Your task to perform on an android device: Play the last video I watched on Youtube Image 0: 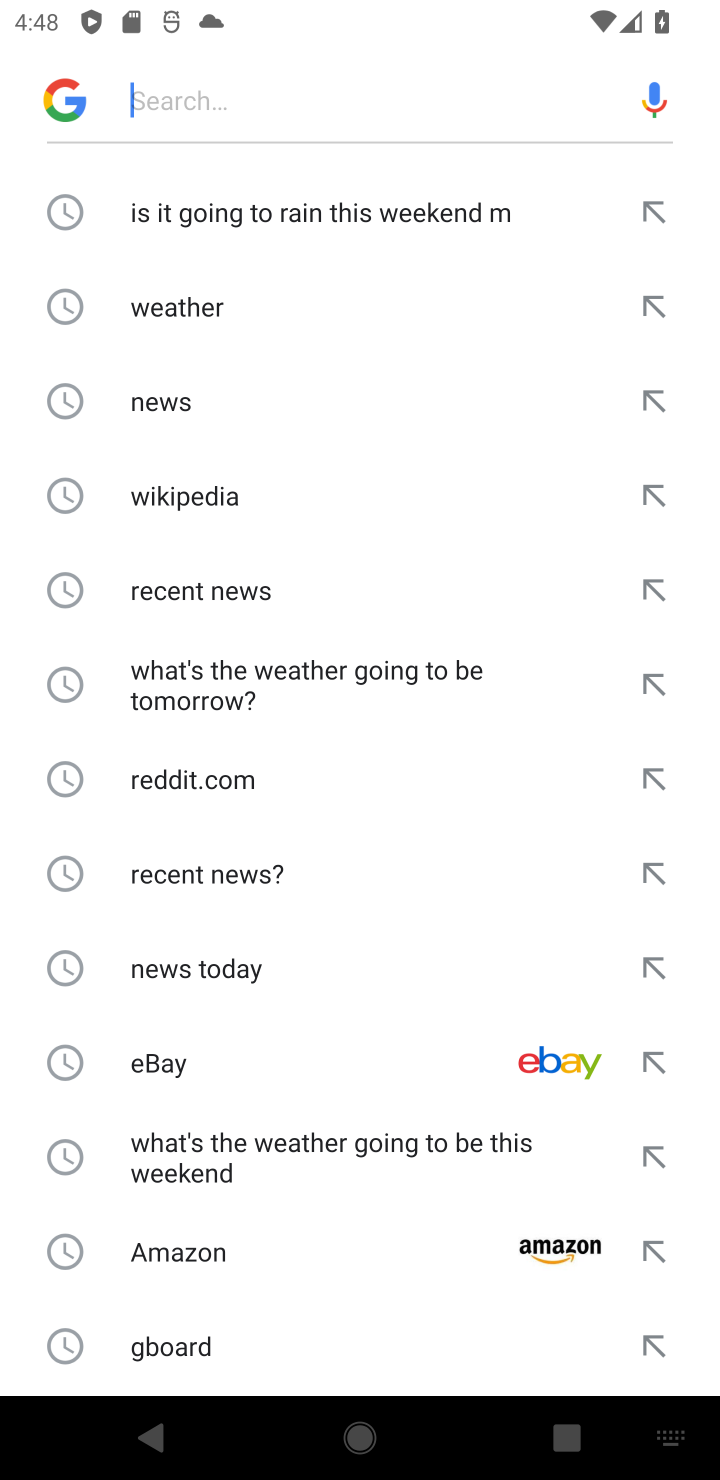
Step 0: press back button
Your task to perform on an android device: Play the last video I watched on Youtube Image 1: 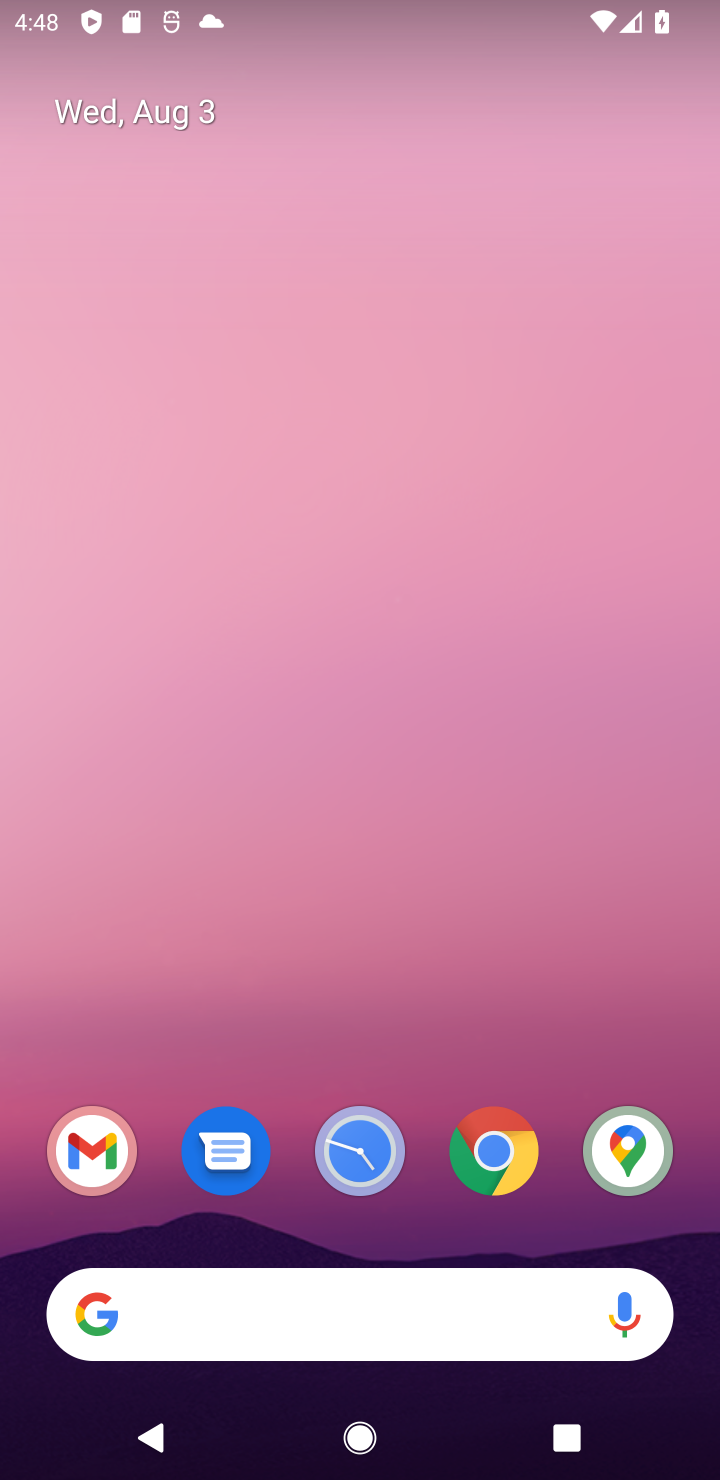
Step 1: drag from (449, 1167) to (266, 141)
Your task to perform on an android device: Play the last video I watched on Youtube Image 2: 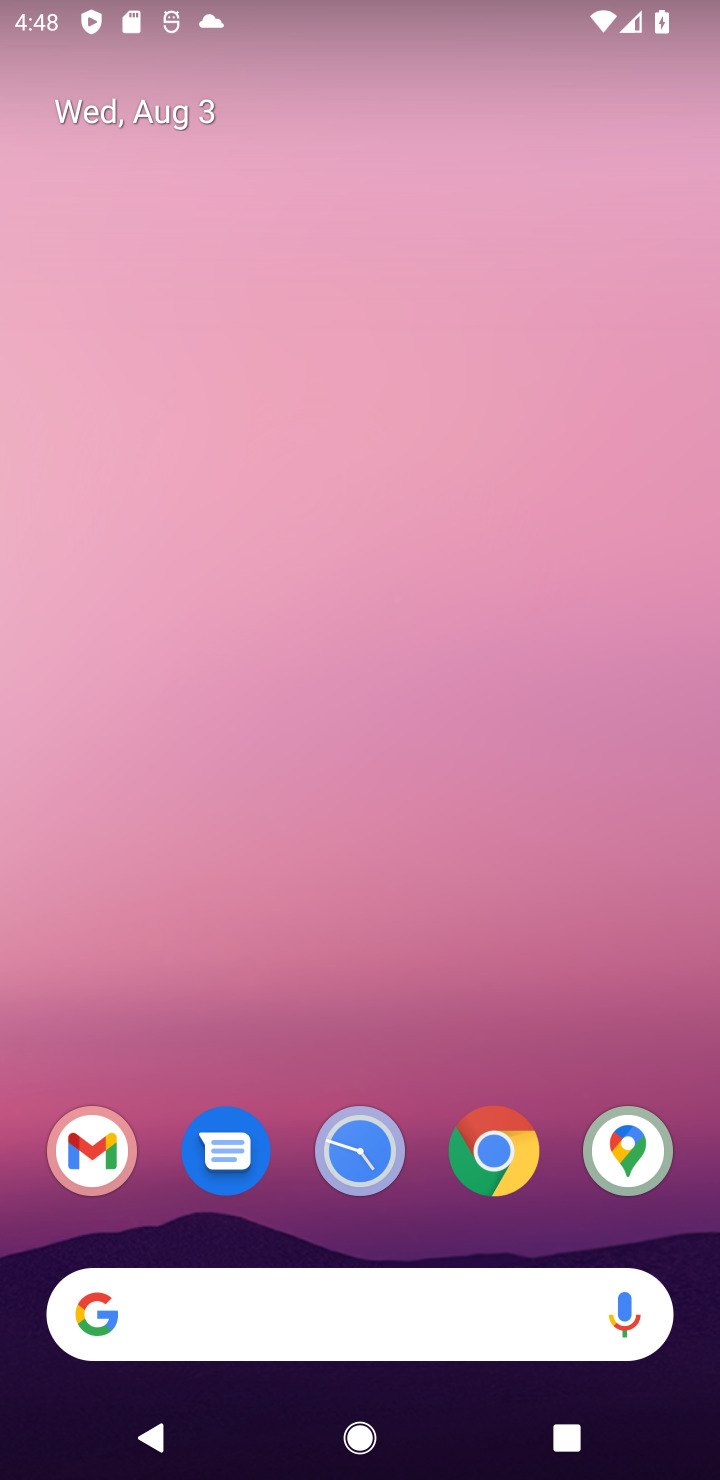
Step 2: drag from (561, 691) to (561, 345)
Your task to perform on an android device: Play the last video I watched on Youtube Image 3: 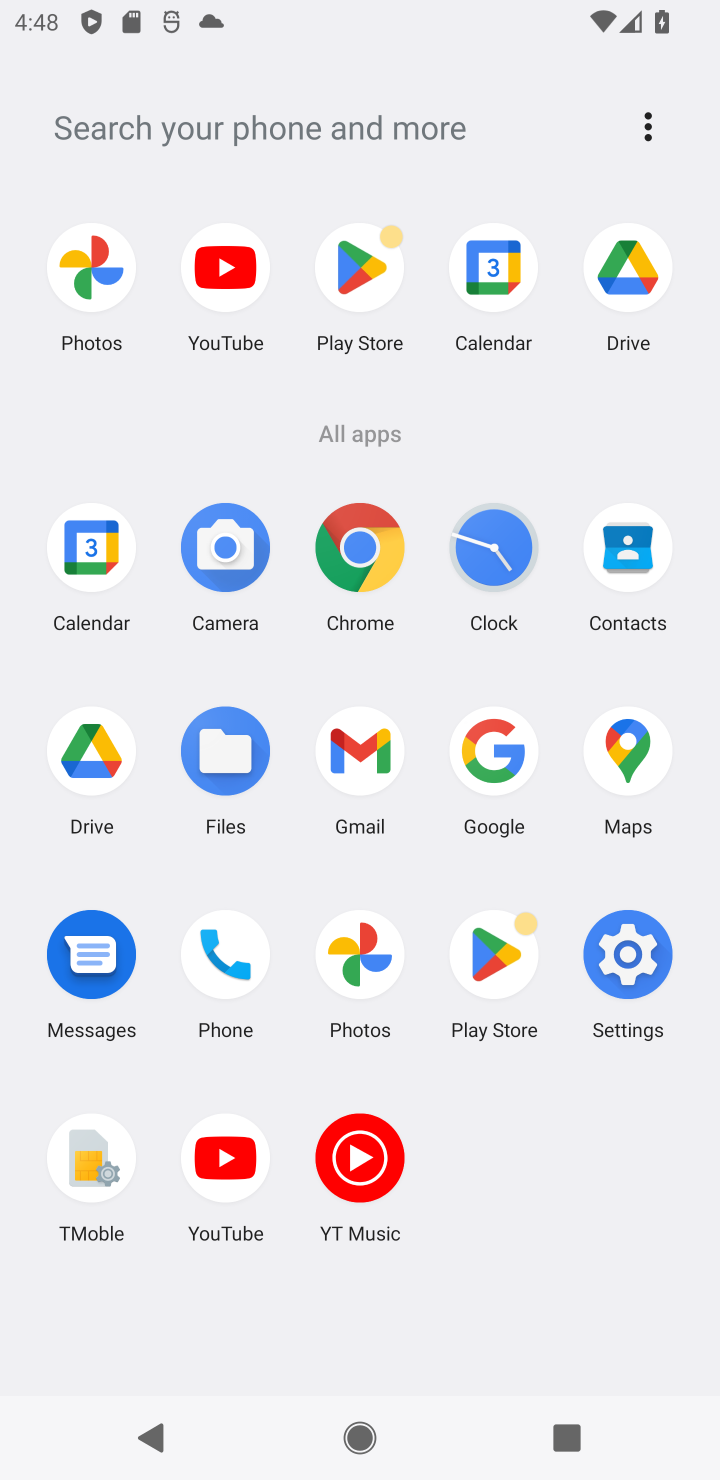
Step 3: drag from (518, 485) to (515, 213)
Your task to perform on an android device: Play the last video I watched on Youtube Image 4: 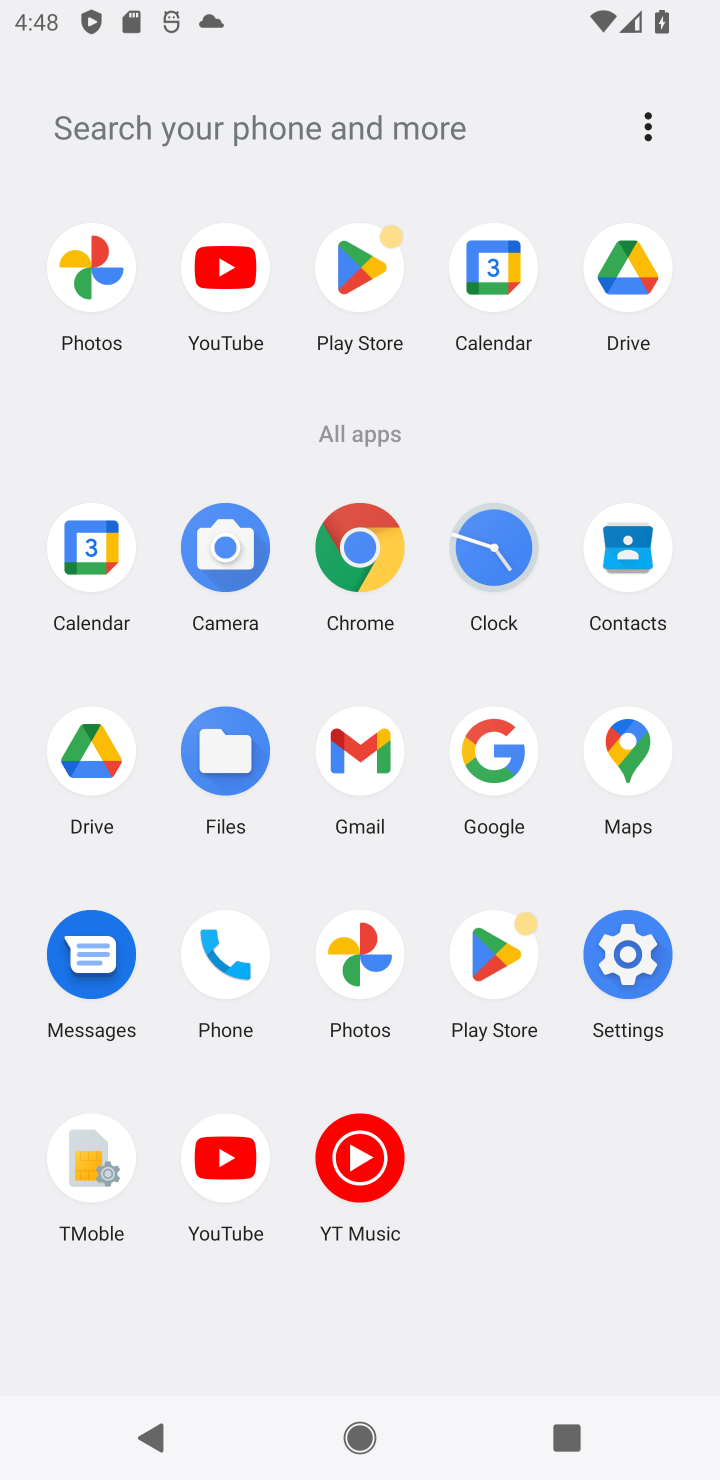
Step 4: click (226, 1166)
Your task to perform on an android device: Play the last video I watched on Youtube Image 5: 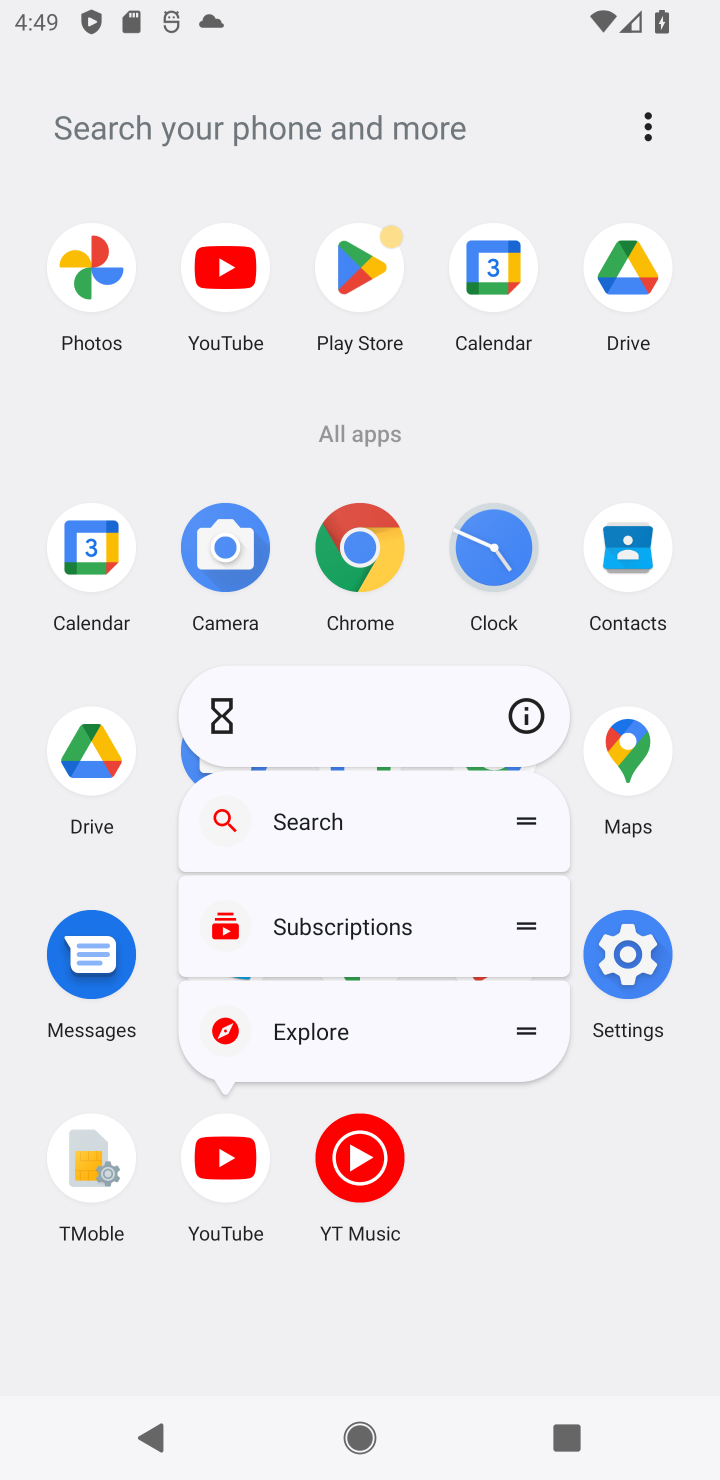
Step 5: click (224, 1201)
Your task to perform on an android device: Play the last video I watched on Youtube Image 6: 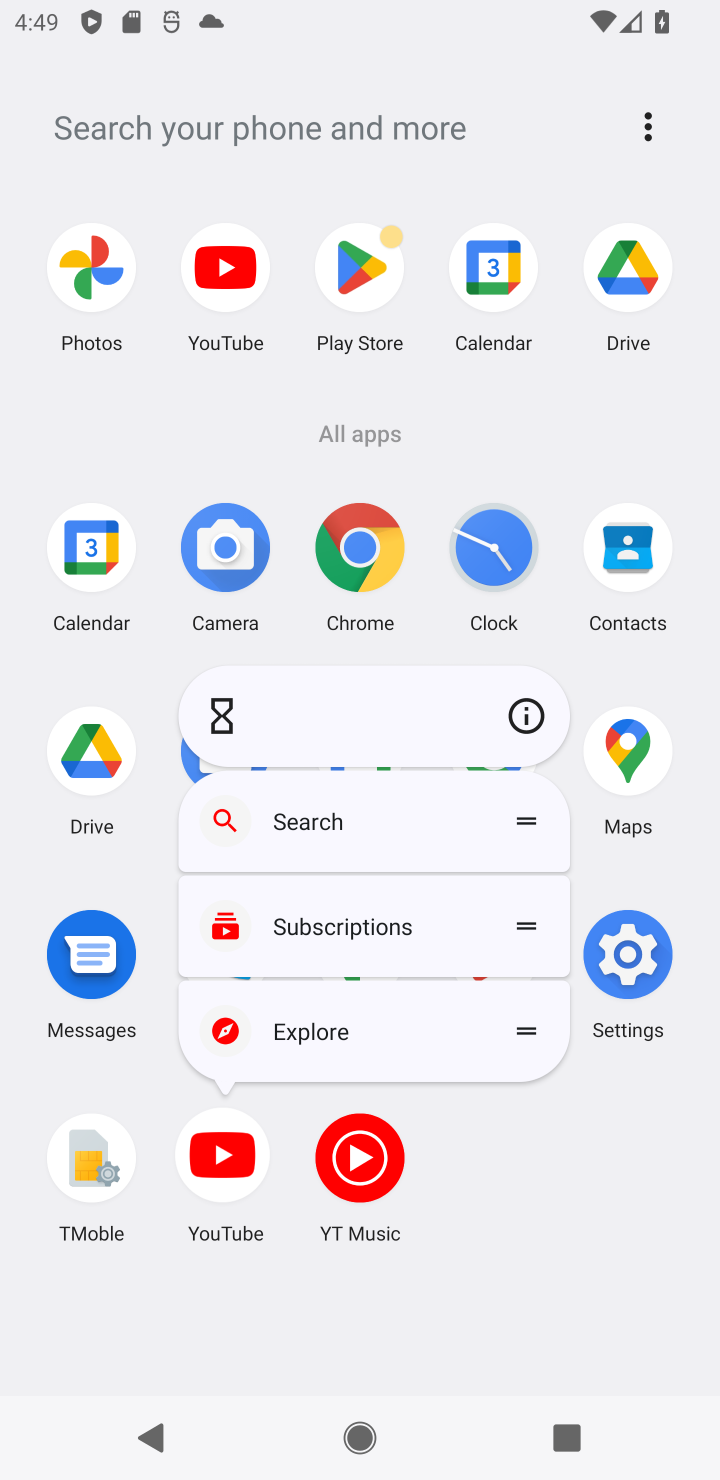
Step 6: click (284, 1018)
Your task to perform on an android device: Play the last video I watched on Youtube Image 7: 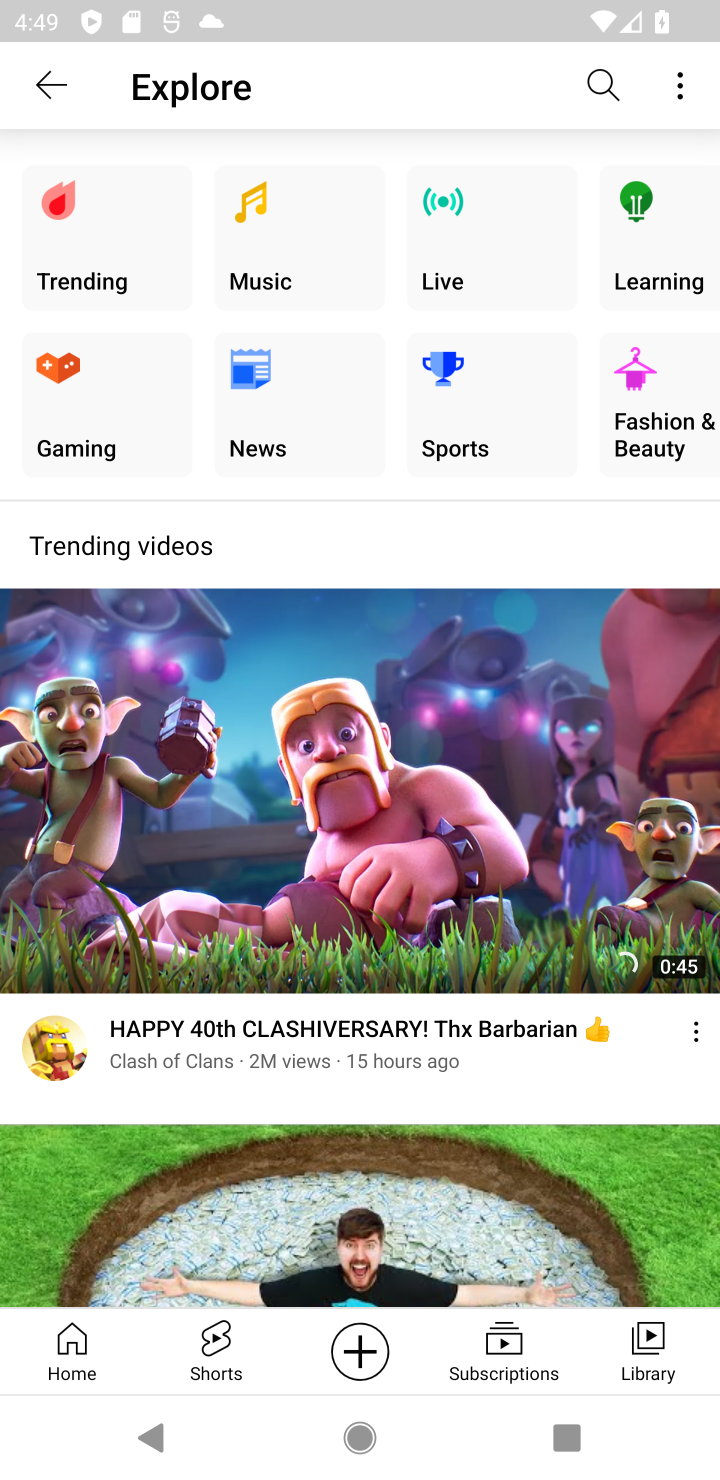
Step 7: click (316, 784)
Your task to perform on an android device: Play the last video I watched on Youtube Image 8: 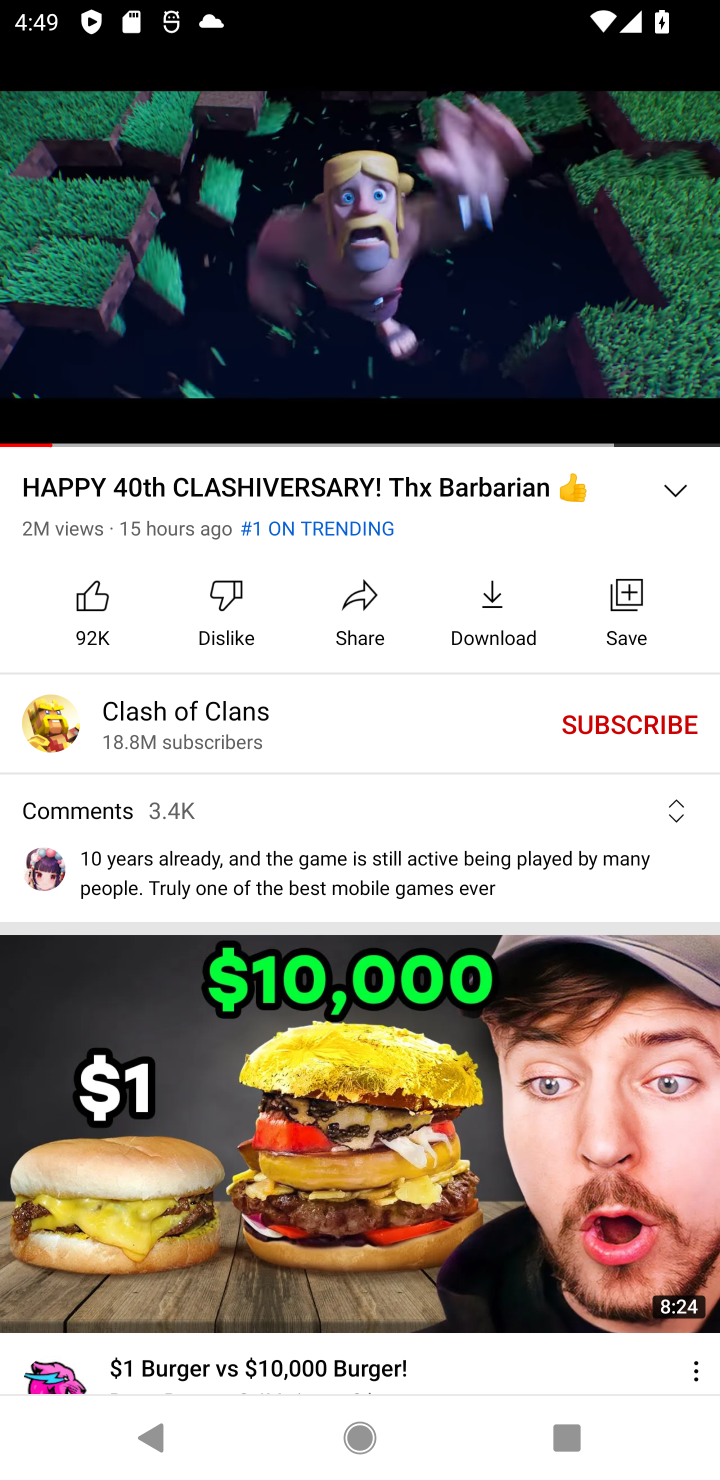
Step 8: click (240, 319)
Your task to perform on an android device: Play the last video I watched on Youtube Image 9: 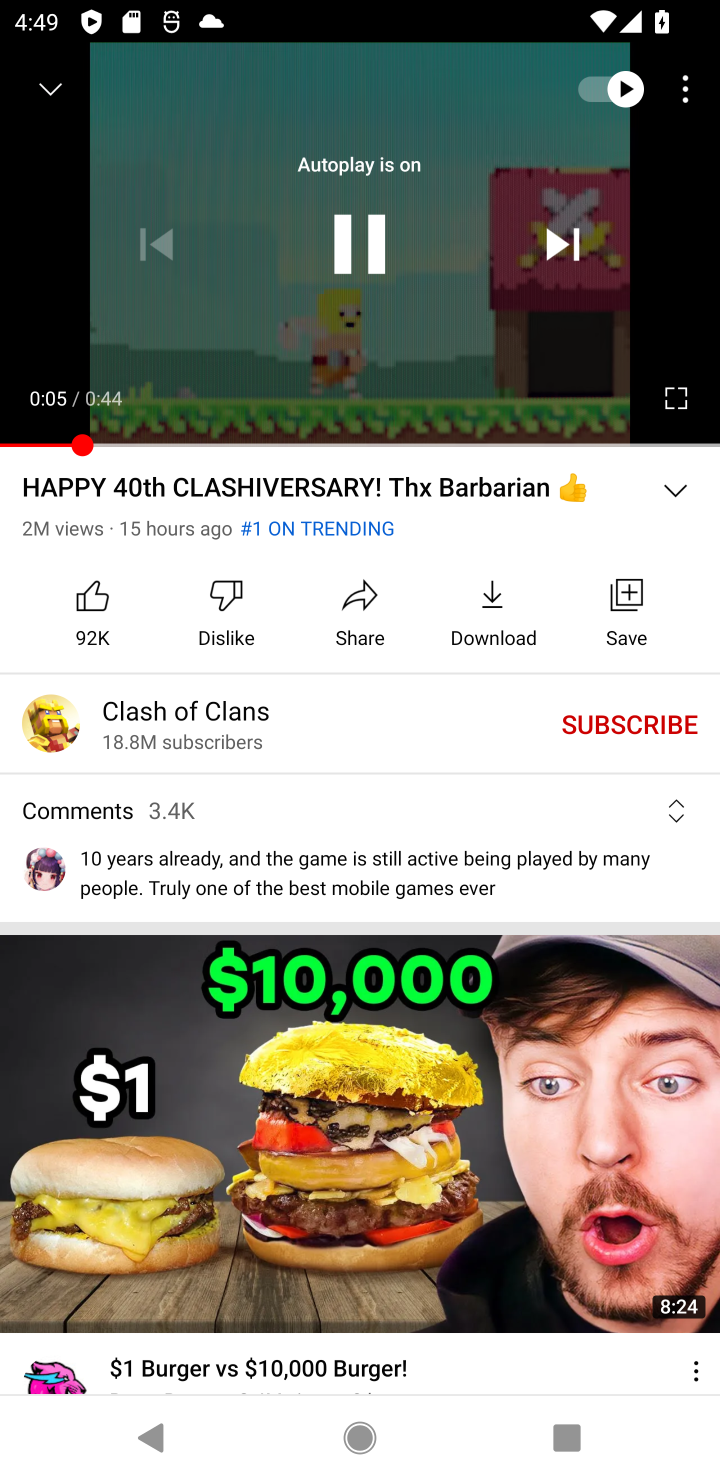
Step 9: click (327, 244)
Your task to perform on an android device: Play the last video I watched on Youtube Image 10: 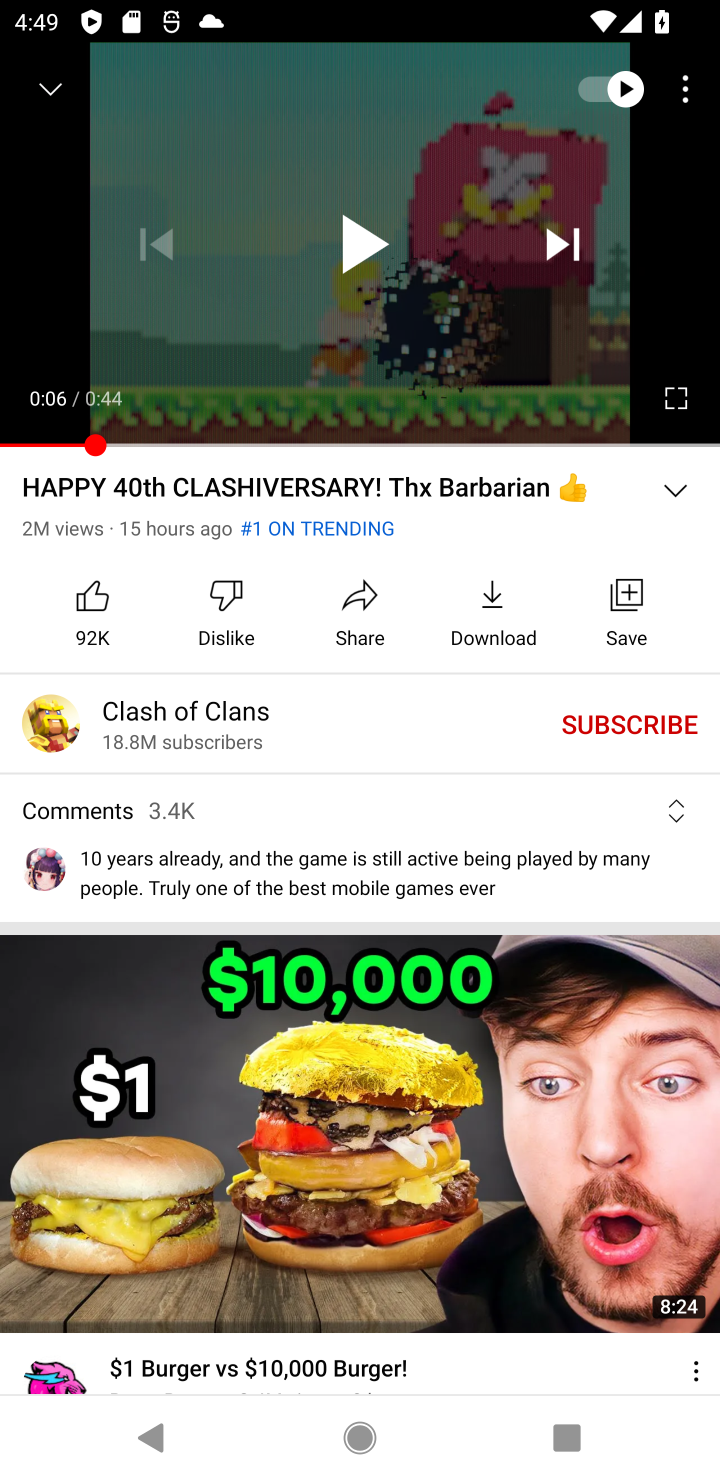
Step 10: task complete